Your task to perform on an android device: What's on my calendar tomorrow? Image 0: 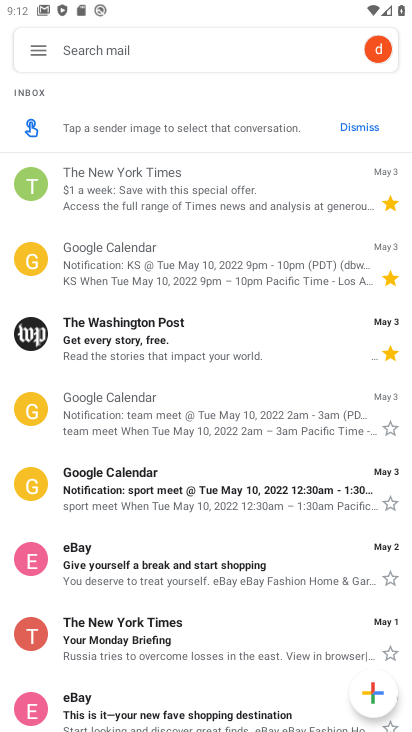
Step 0: press home button
Your task to perform on an android device: What's on my calendar tomorrow? Image 1: 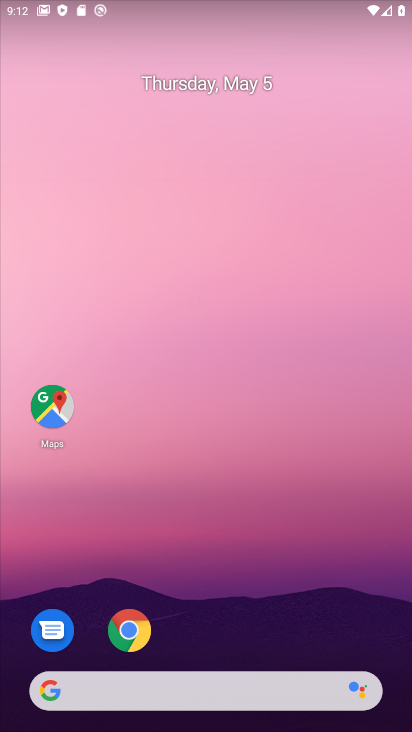
Step 1: drag from (216, 558) to (145, 164)
Your task to perform on an android device: What's on my calendar tomorrow? Image 2: 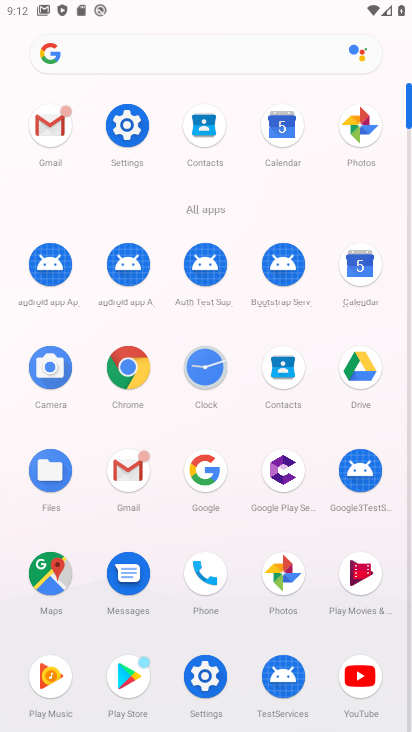
Step 2: click (285, 118)
Your task to perform on an android device: What's on my calendar tomorrow? Image 3: 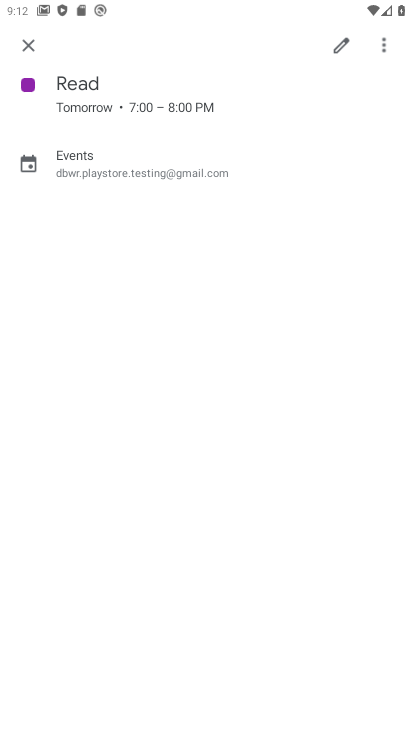
Step 3: click (26, 40)
Your task to perform on an android device: What's on my calendar tomorrow? Image 4: 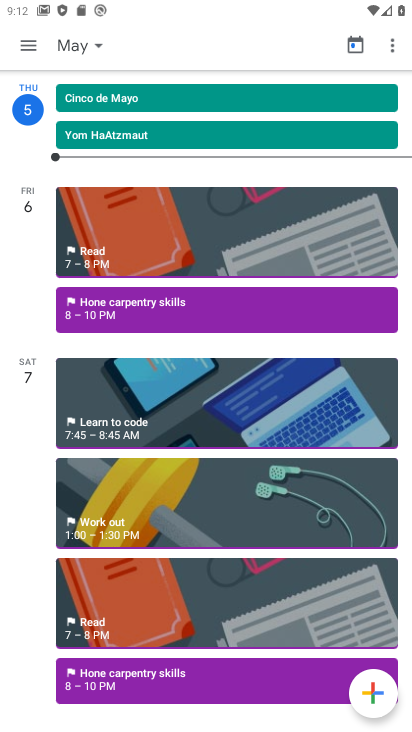
Step 4: click (148, 216)
Your task to perform on an android device: What's on my calendar tomorrow? Image 5: 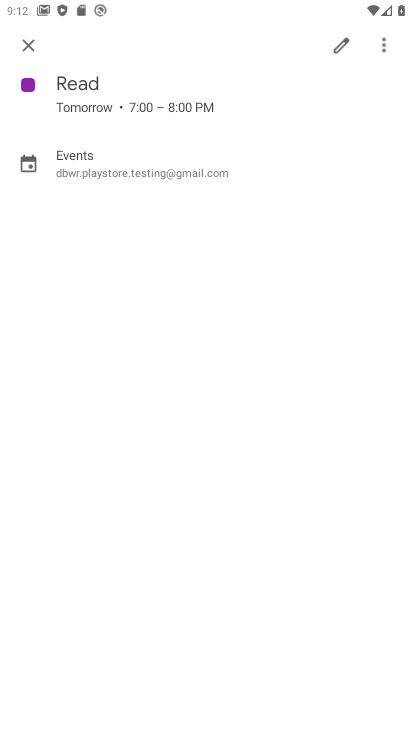
Step 5: click (28, 44)
Your task to perform on an android device: What's on my calendar tomorrow? Image 6: 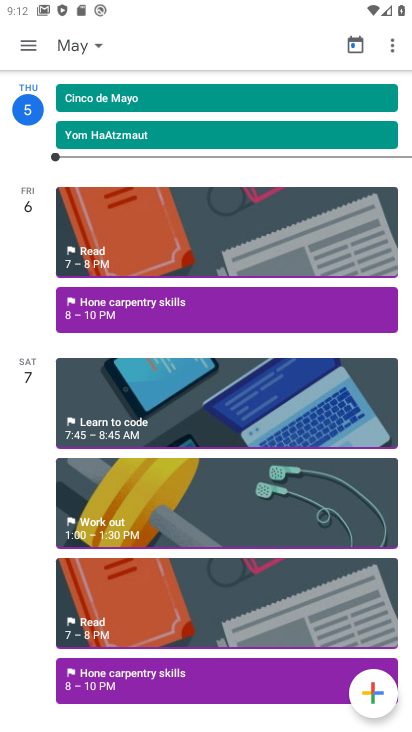
Step 6: click (131, 301)
Your task to perform on an android device: What's on my calendar tomorrow? Image 7: 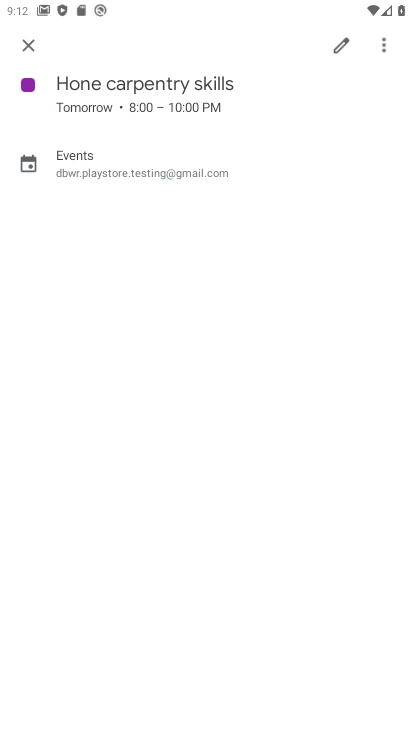
Step 7: click (24, 45)
Your task to perform on an android device: What's on my calendar tomorrow? Image 8: 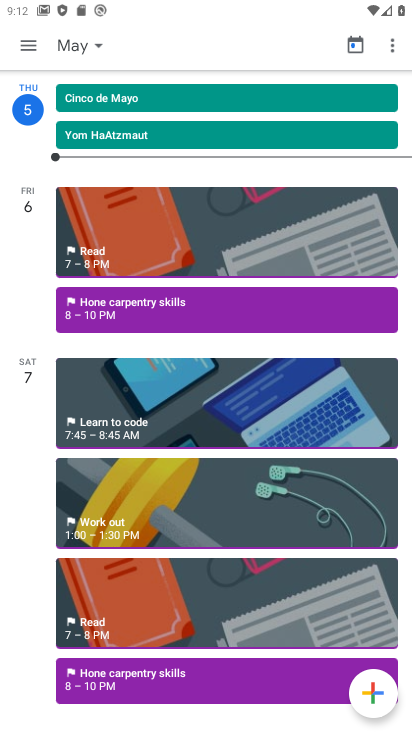
Step 8: task complete